Your task to perform on an android device: Open network settings Image 0: 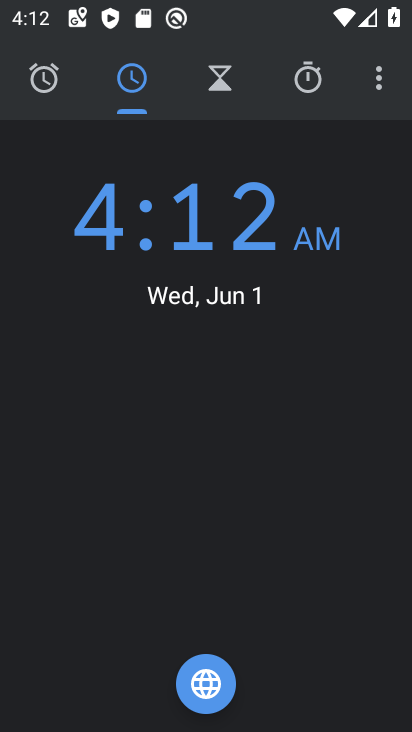
Step 0: press home button
Your task to perform on an android device: Open network settings Image 1: 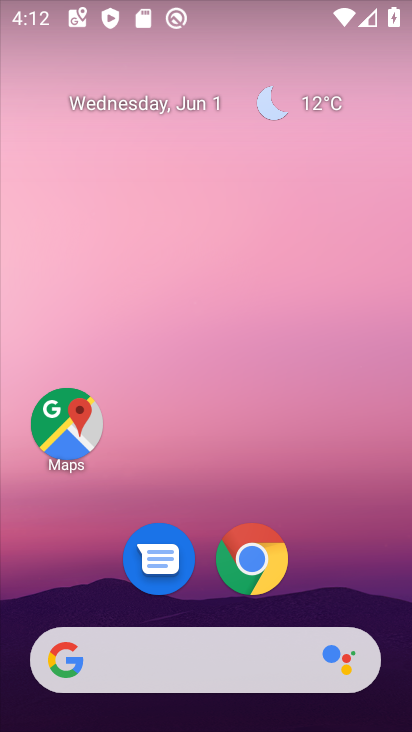
Step 1: drag from (295, 591) to (361, 14)
Your task to perform on an android device: Open network settings Image 2: 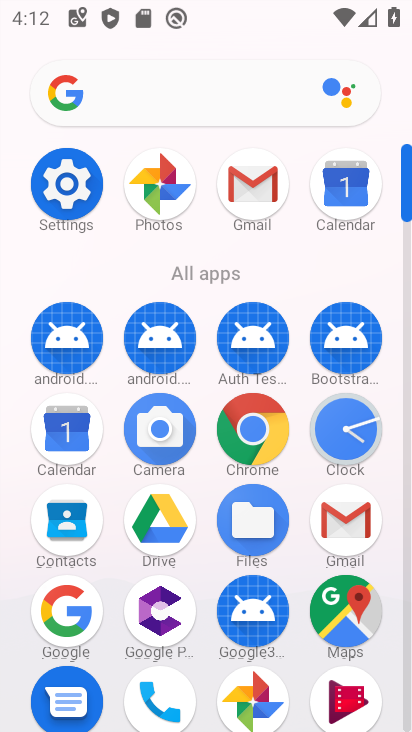
Step 2: click (60, 176)
Your task to perform on an android device: Open network settings Image 3: 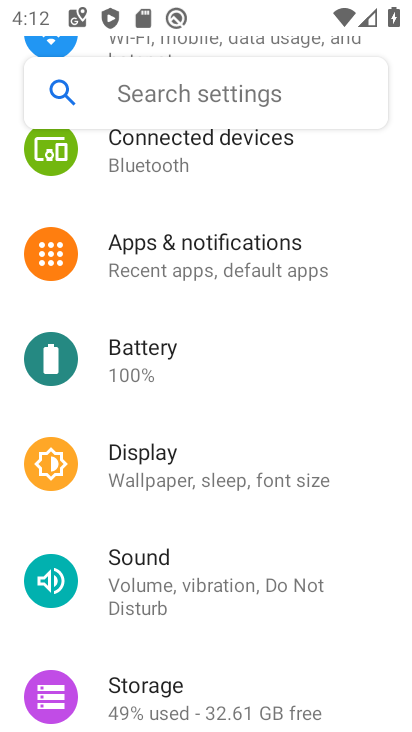
Step 3: drag from (164, 195) to (227, 714)
Your task to perform on an android device: Open network settings Image 4: 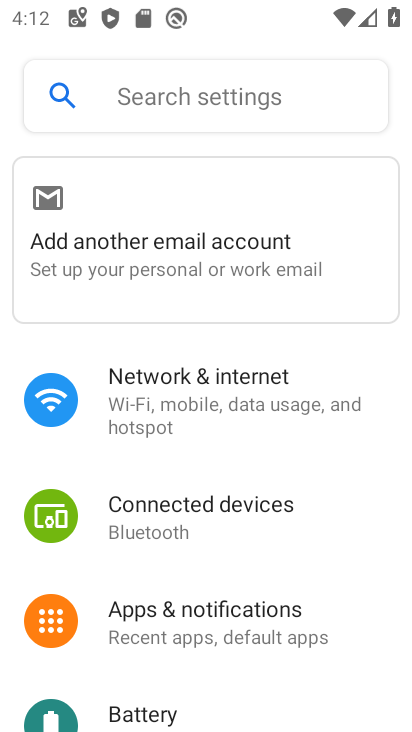
Step 4: click (206, 395)
Your task to perform on an android device: Open network settings Image 5: 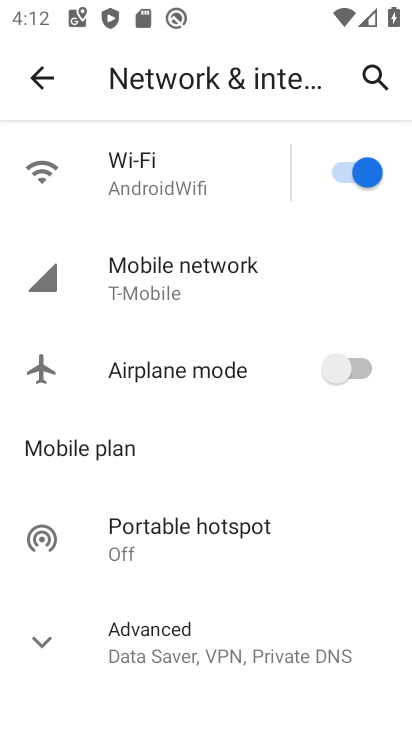
Step 5: click (180, 291)
Your task to perform on an android device: Open network settings Image 6: 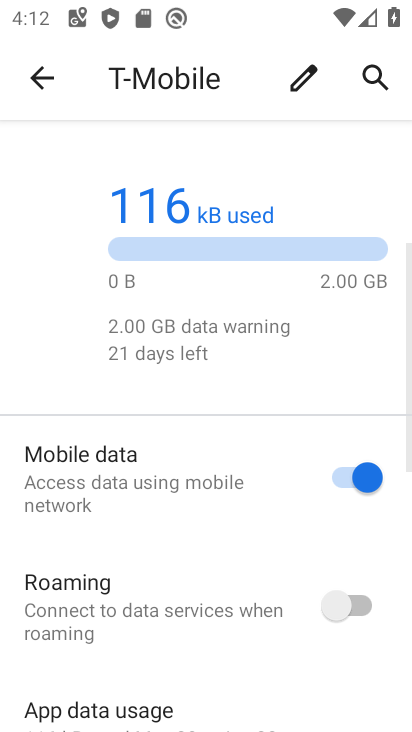
Step 6: task complete